Your task to perform on an android device: Play the last video I watched on Youtube Image 0: 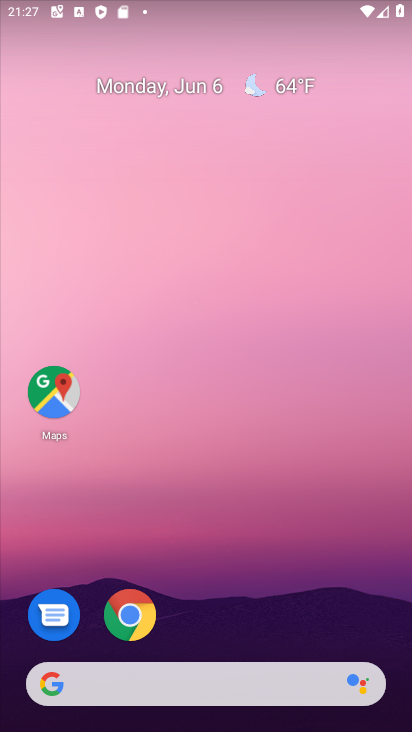
Step 0: drag from (407, 685) to (386, 93)
Your task to perform on an android device: Play the last video I watched on Youtube Image 1: 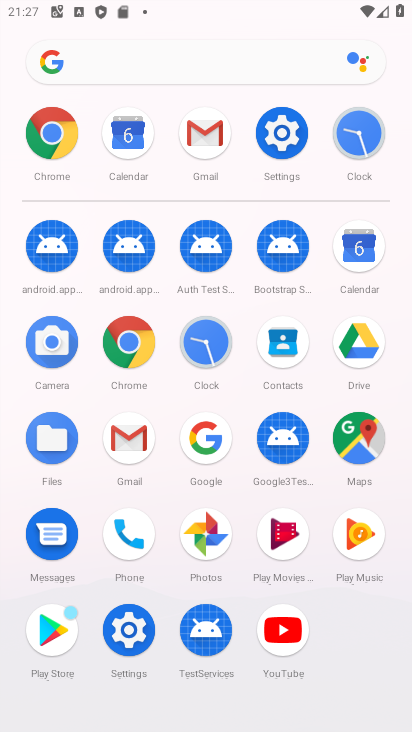
Step 1: click (289, 622)
Your task to perform on an android device: Play the last video I watched on Youtube Image 2: 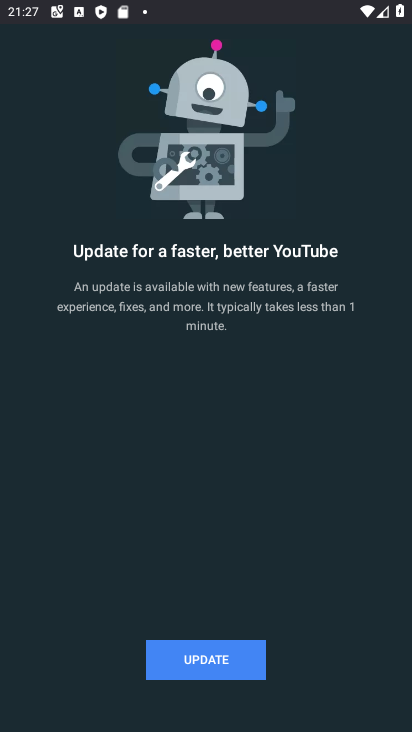
Step 2: click (212, 671)
Your task to perform on an android device: Play the last video I watched on Youtube Image 3: 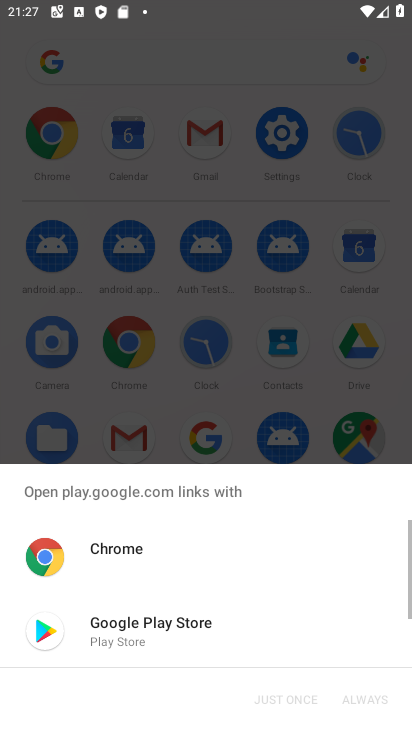
Step 3: click (194, 660)
Your task to perform on an android device: Play the last video I watched on Youtube Image 4: 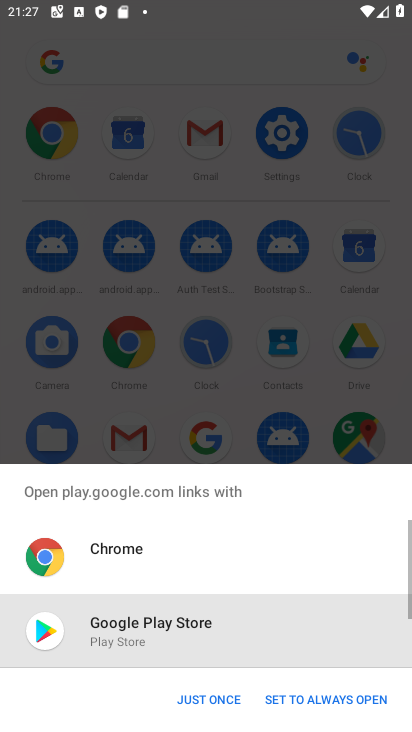
Step 4: click (193, 698)
Your task to perform on an android device: Play the last video I watched on Youtube Image 5: 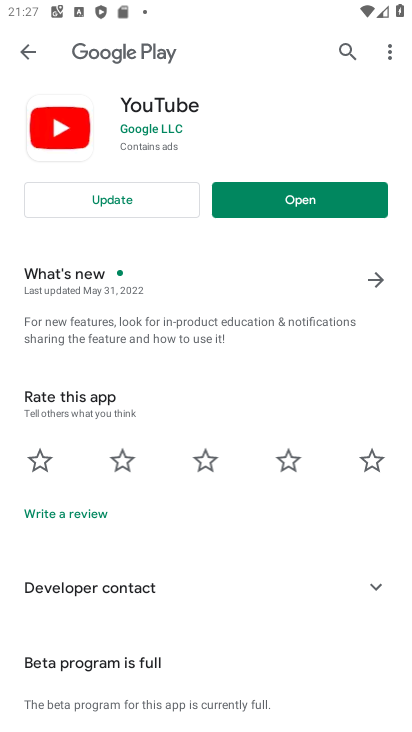
Step 5: click (133, 204)
Your task to perform on an android device: Play the last video I watched on Youtube Image 6: 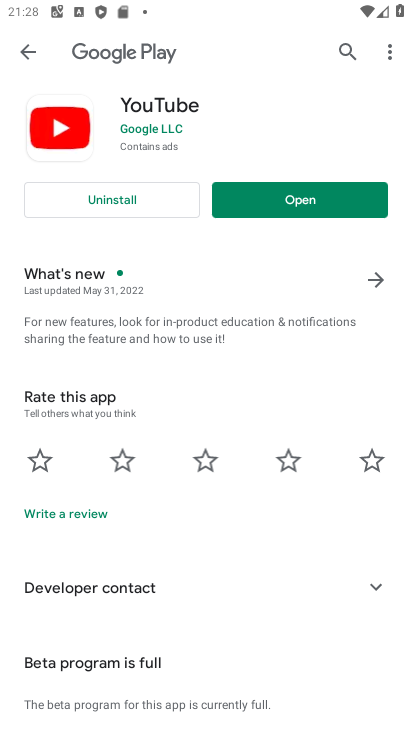
Step 6: click (249, 207)
Your task to perform on an android device: Play the last video I watched on Youtube Image 7: 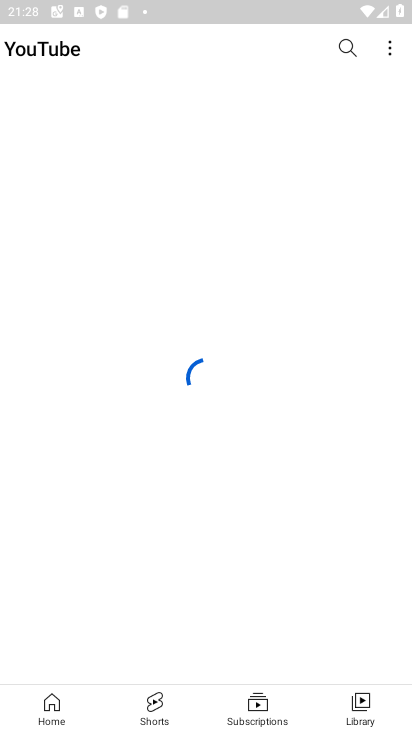
Step 7: click (359, 696)
Your task to perform on an android device: Play the last video I watched on Youtube Image 8: 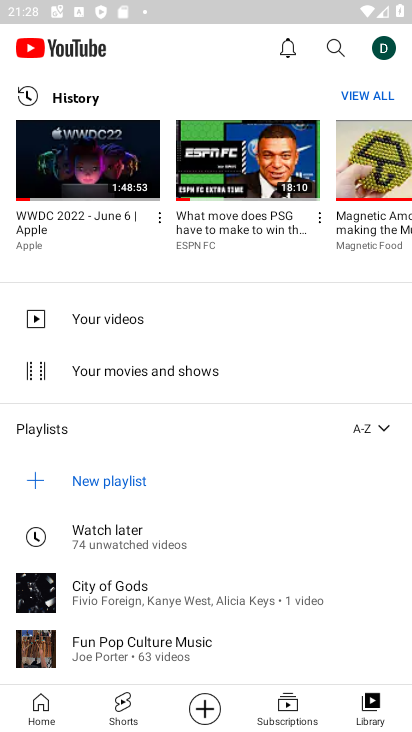
Step 8: click (96, 166)
Your task to perform on an android device: Play the last video I watched on Youtube Image 9: 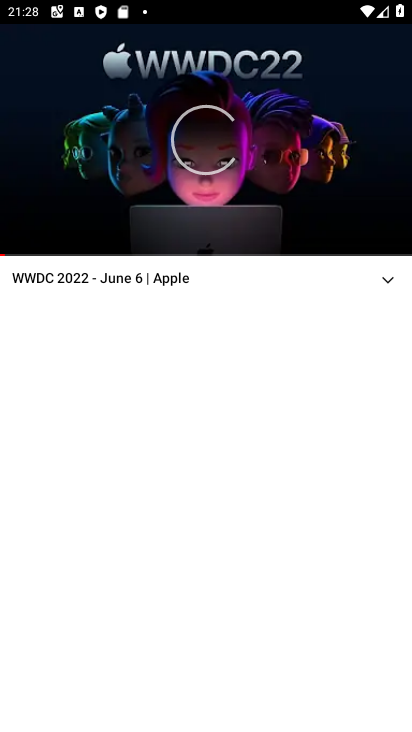
Step 9: task complete